Your task to perform on an android device: open sync settings in chrome Image 0: 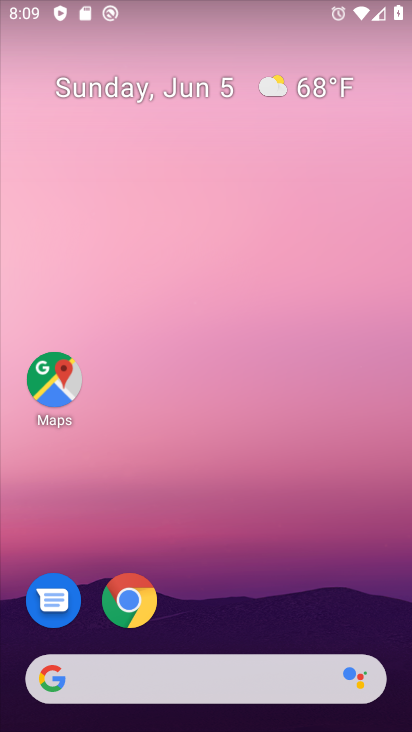
Step 0: drag from (377, 591) to (253, 84)
Your task to perform on an android device: open sync settings in chrome Image 1: 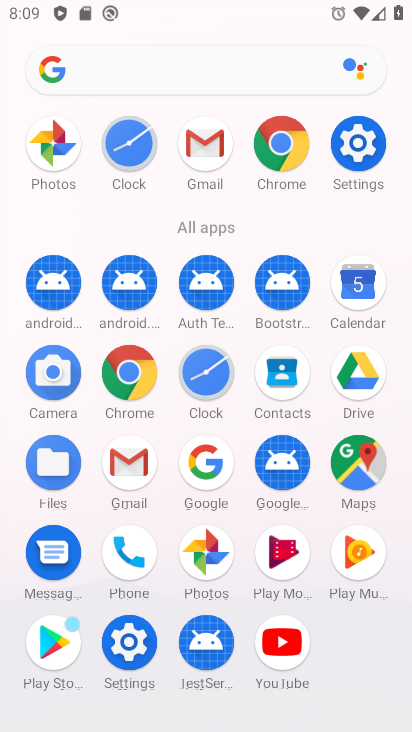
Step 1: click (269, 156)
Your task to perform on an android device: open sync settings in chrome Image 2: 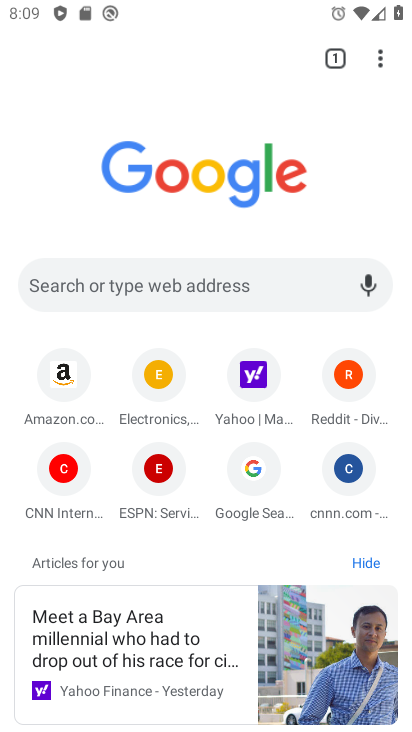
Step 2: click (384, 56)
Your task to perform on an android device: open sync settings in chrome Image 3: 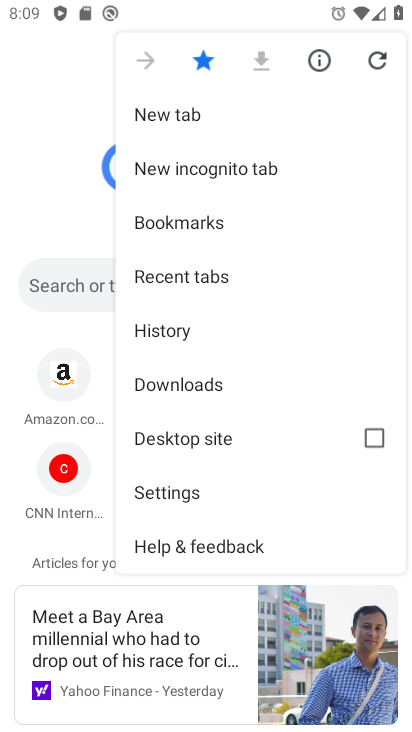
Step 3: click (179, 501)
Your task to perform on an android device: open sync settings in chrome Image 4: 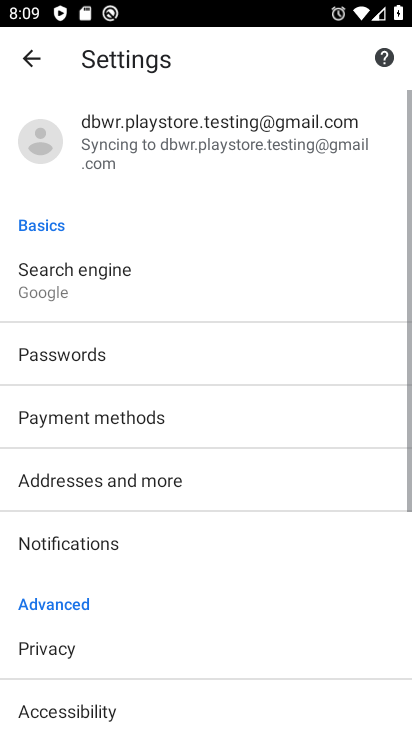
Step 4: drag from (89, 671) to (142, 271)
Your task to perform on an android device: open sync settings in chrome Image 5: 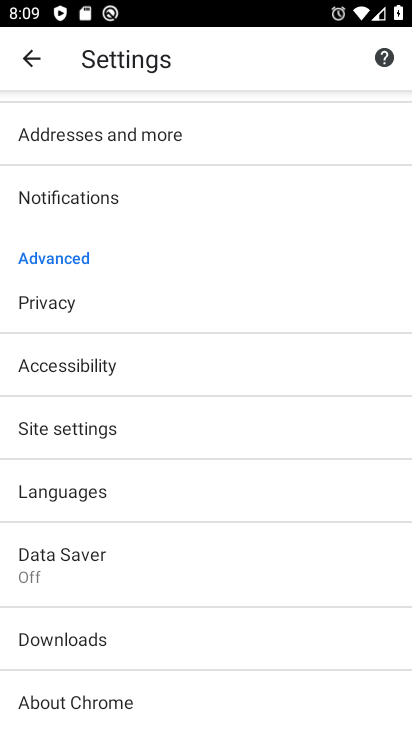
Step 5: click (153, 426)
Your task to perform on an android device: open sync settings in chrome Image 6: 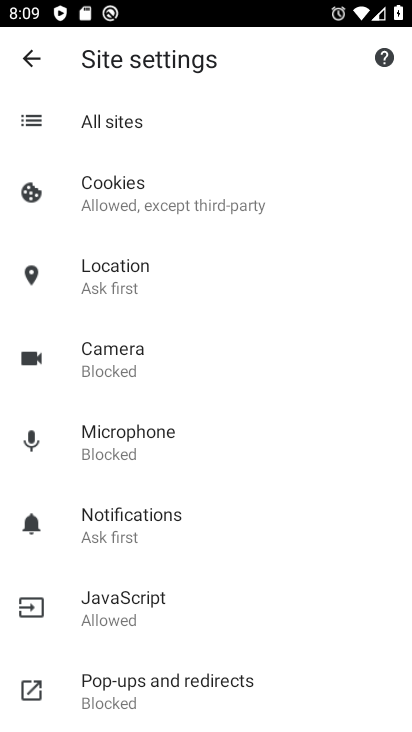
Step 6: drag from (165, 674) to (208, 296)
Your task to perform on an android device: open sync settings in chrome Image 7: 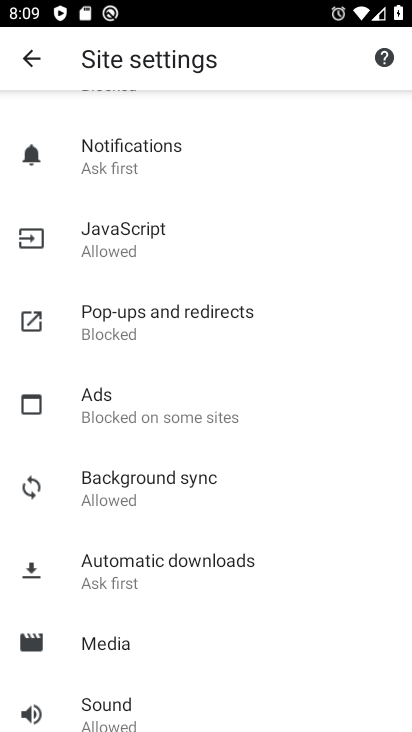
Step 7: click (181, 495)
Your task to perform on an android device: open sync settings in chrome Image 8: 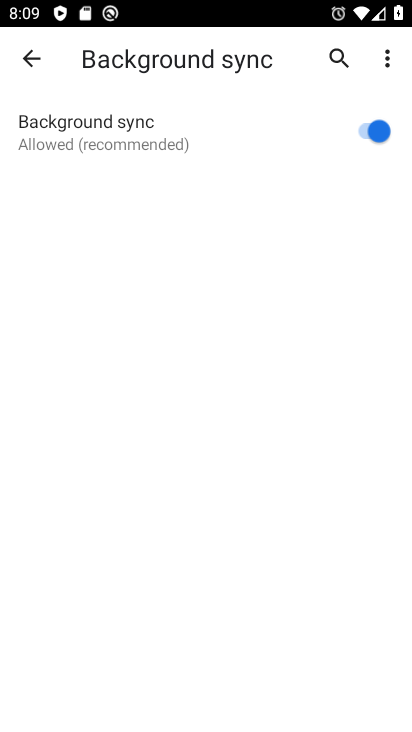
Step 8: task complete